Your task to perform on an android device: What is the news today? Image 0: 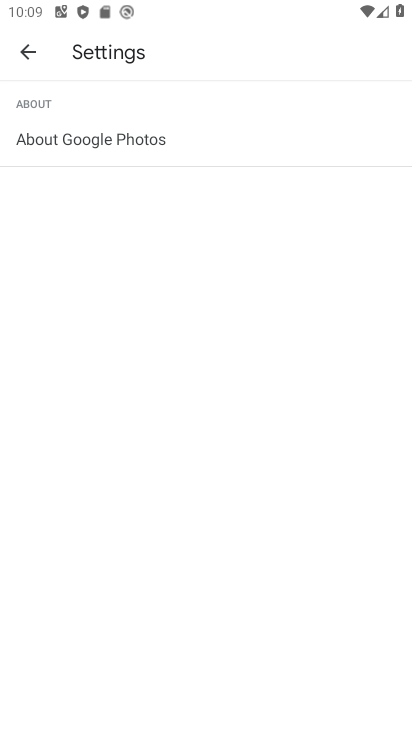
Step 0: press home button
Your task to perform on an android device: What is the news today? Image 1: 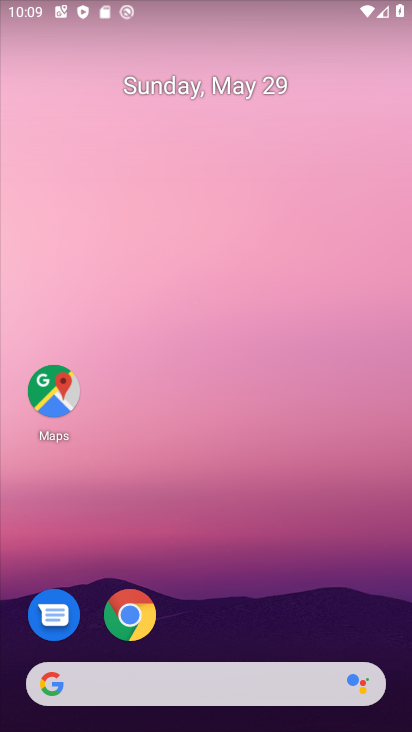
Step 1: click (193, 689)
Your task to perform on an android device: What is the news today? Image 2: 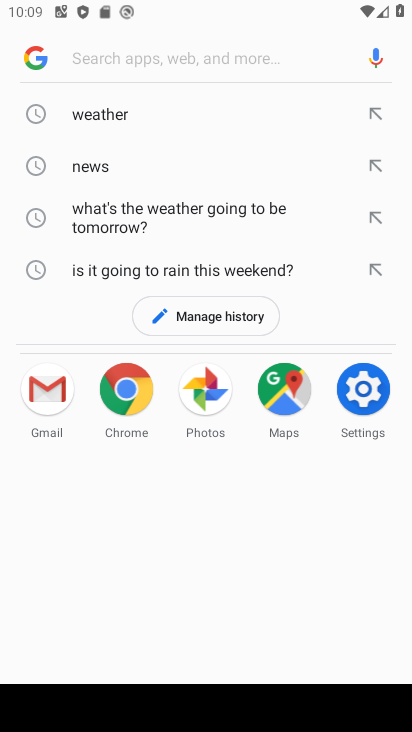
Step 2: click (105, 163)
Your task to perform on an android device: What is the news today? Image 3: 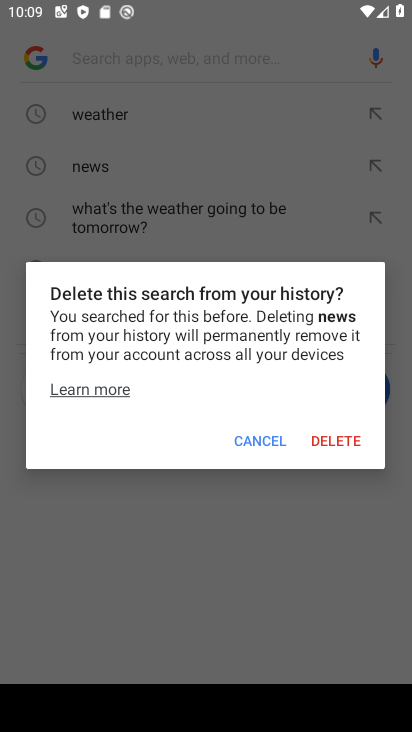
Step 3: click (251, 436)
Your task to perform on an android device: What is the news today? Image 4: 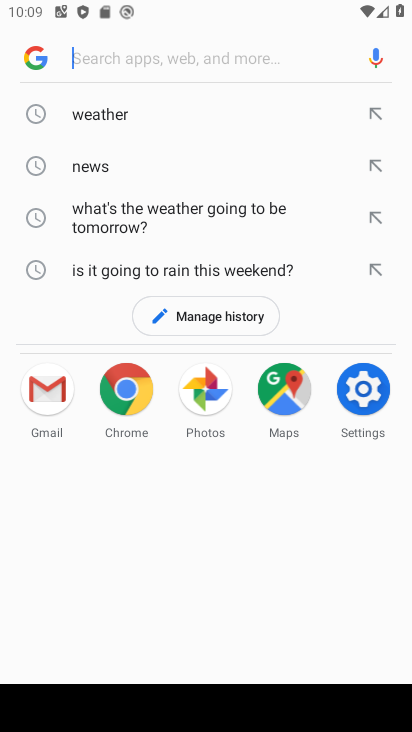
Step 4: click (110, 169)
Your task to perform on an android device: What is the news today? Image 5: 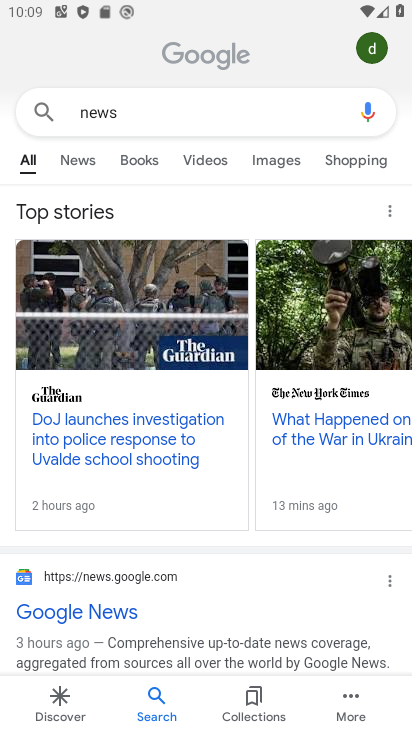
Step 5: click (87, 159)
Your task to perform on an android device: What is the news today? Image 6: 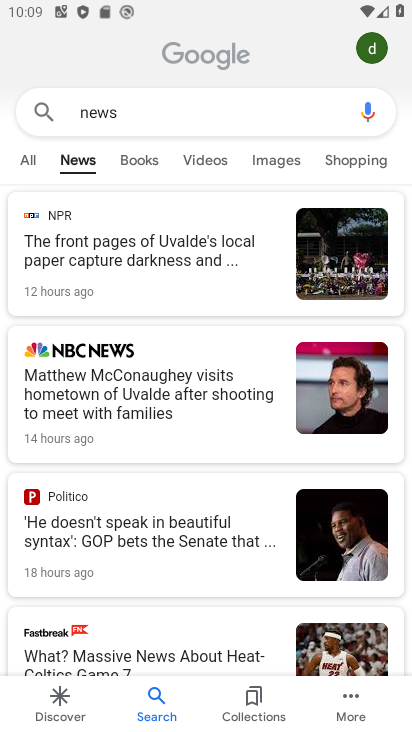
Step 6: task complete